Your task to perform on an android device: Clear the cart on newegg.com. Search for "bose soundsport free" on newegg.com, select the first entry, and add it to the cart. Image 0: 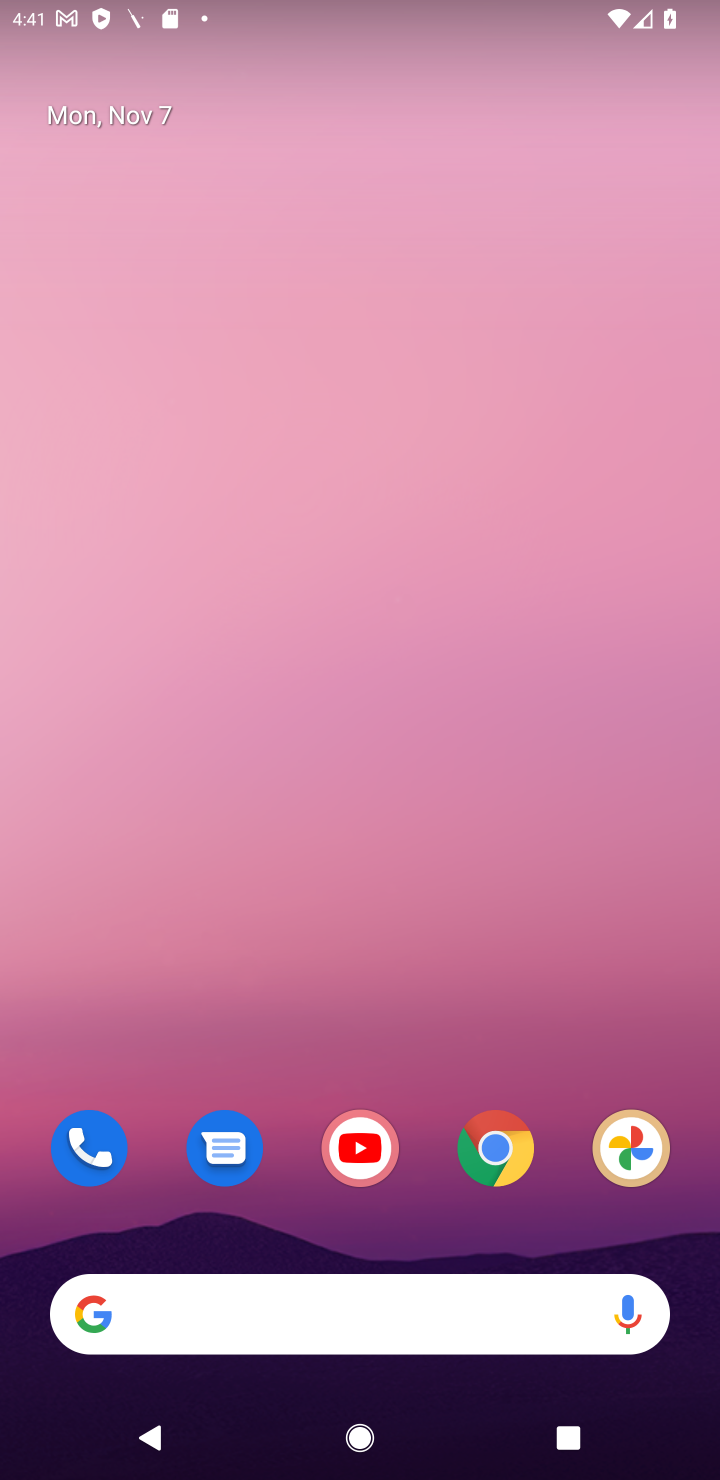
Step 0: click (492, 1147)
Your task to perform on an android device: Clear the cart on newegg.com. Search for "bose soundsport free" on newegg.com, select the first entry, and add it to the cart. Image 1: 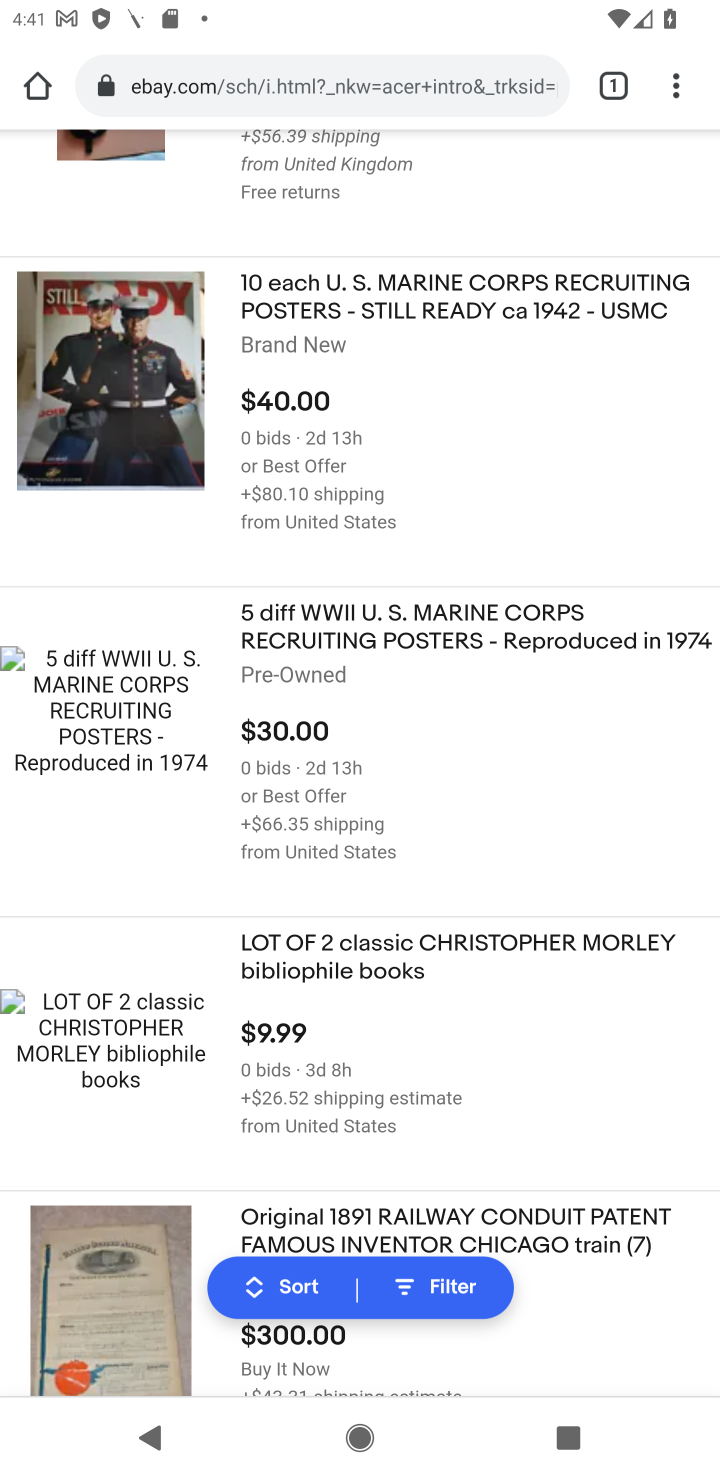
Step 1: click (405, 59)
Your task to perform on an android device: Clear the cart on newegg.com. Search for "bose soundsport free" on newegg.com, select the first entry, and add it to the cart. Image 2: 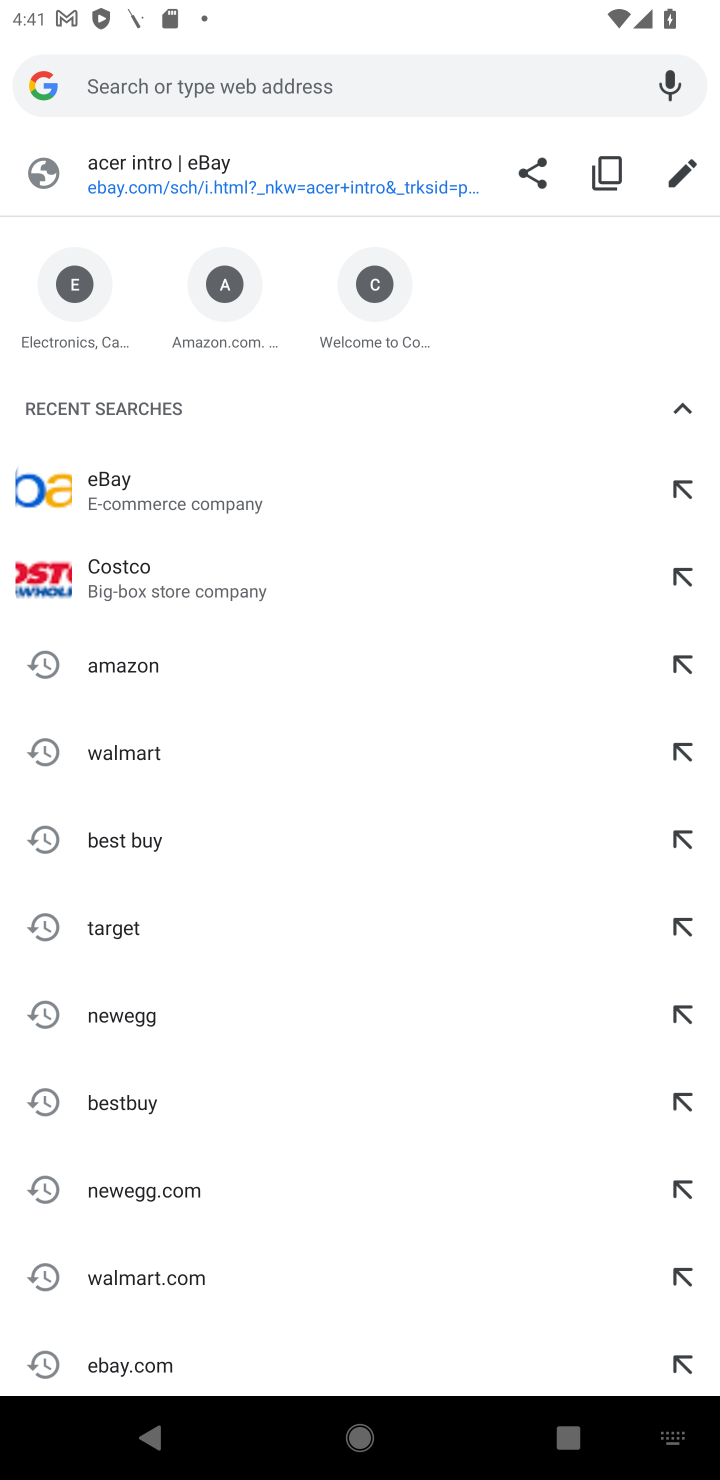
Step 2: type "newegg.com."
Your task to perform on an android device: Clear the cart on newegg.com. Search for "bose soundsport free" on newegg.com, select the first entry, and add it to the cart. Image 3: 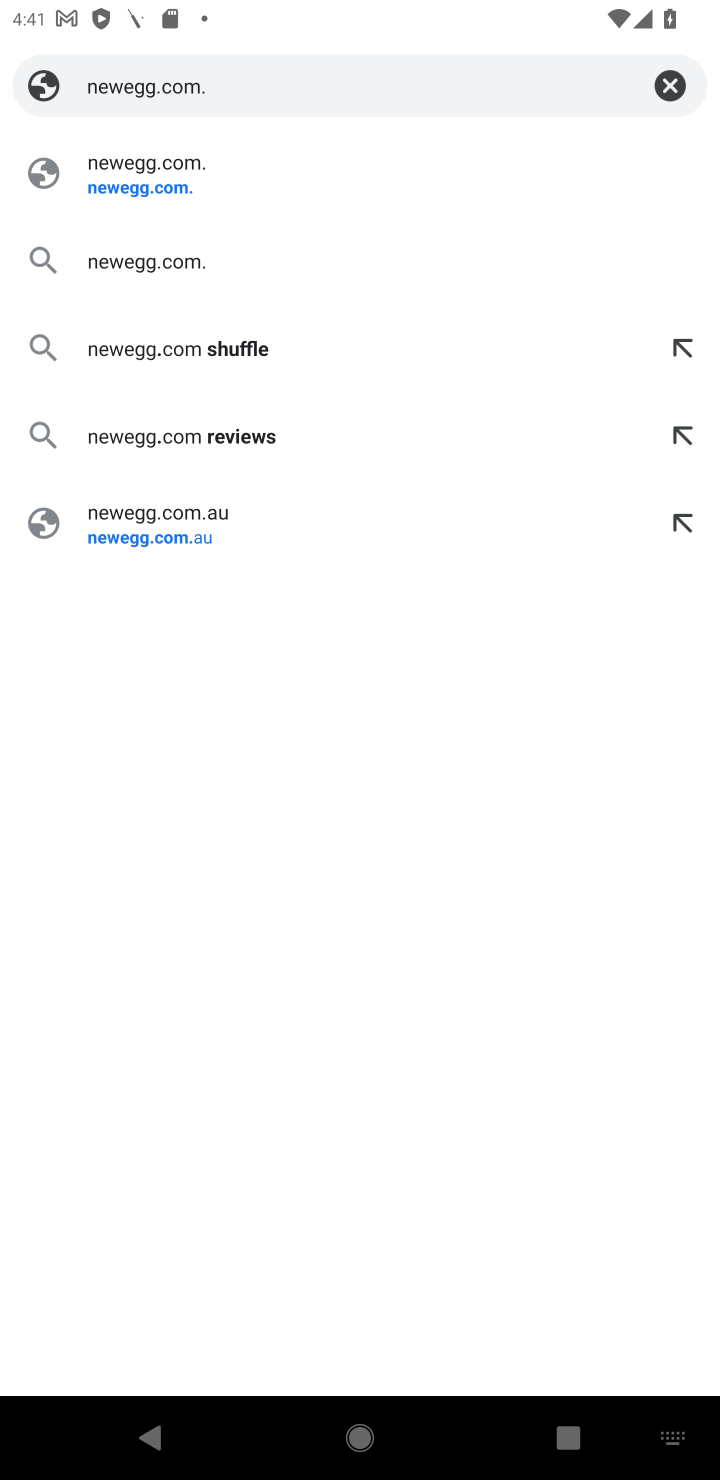
Step 3: click (113, 182)
Your task to perform on an android device: Clear the cart on newegg.com. Search for "bose soundsport free" on newegg.com, select the first entry, and add it to the cart. Image 4: 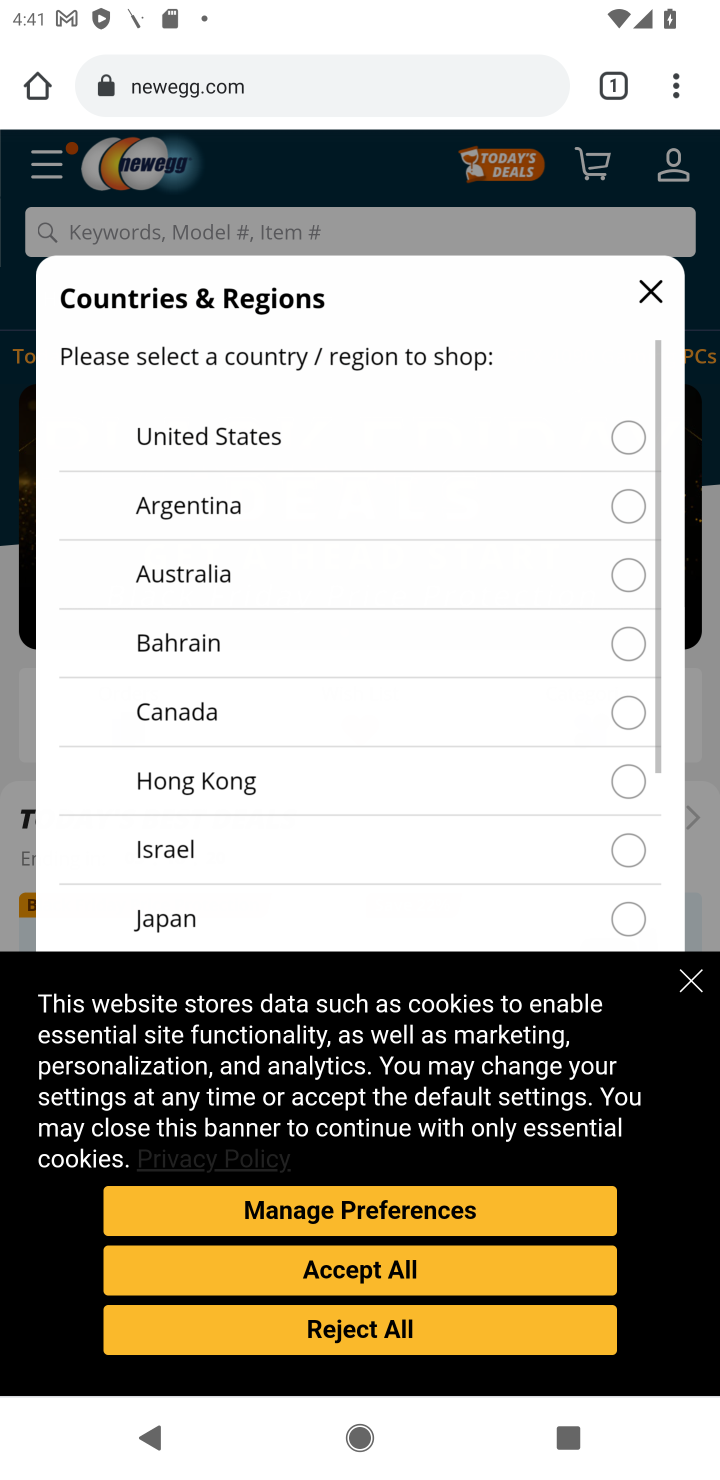
Step 4: click (110, 231)
Your task to perform on an android device: Clear the cart on newegg.com. Search for "bose soundsport free" on newegg.com, select the first entry, and add it to the cart. Image 5: 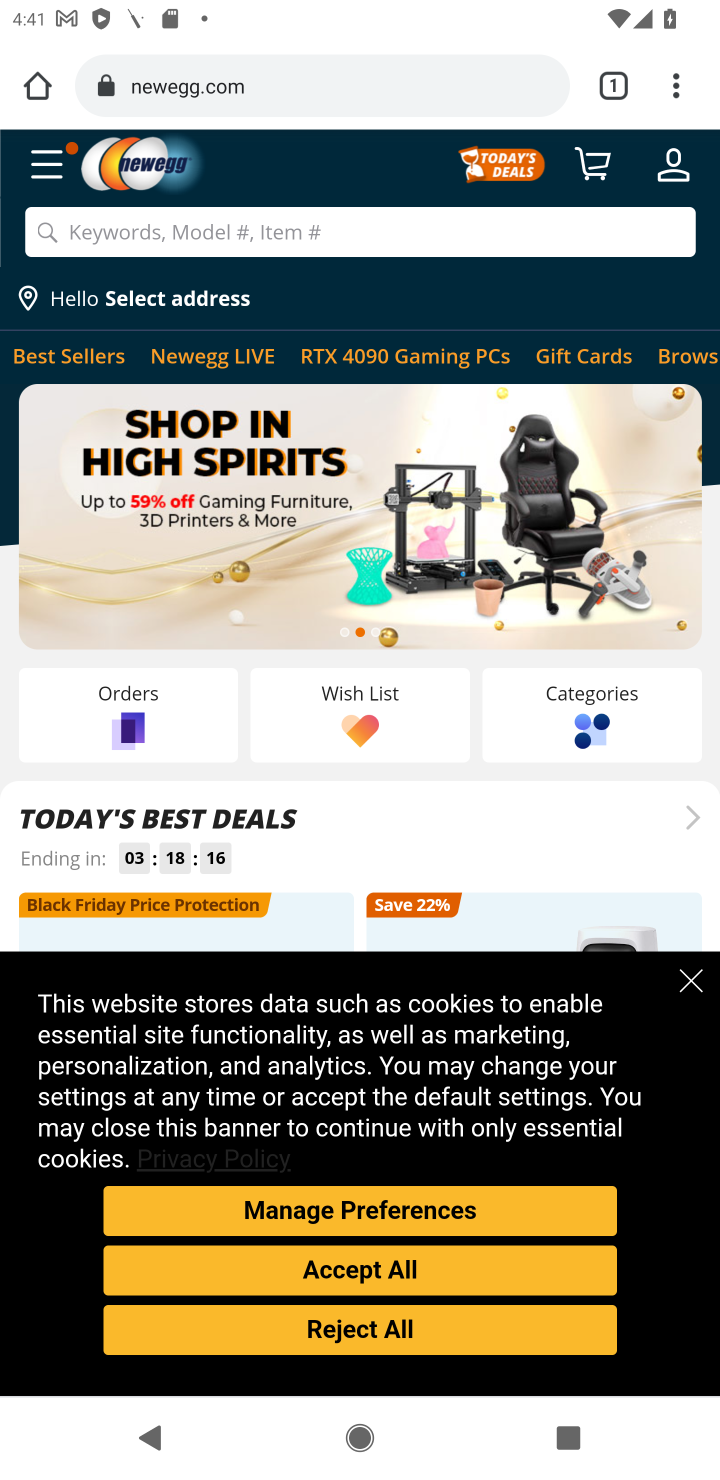
Step 5: click (630, 439)
Your task to perform on an android device: Clear the cart on newegg.com. Search for "bose soundsport free" on newegg.com, select the first entry, and add it to the cart. Image 6: 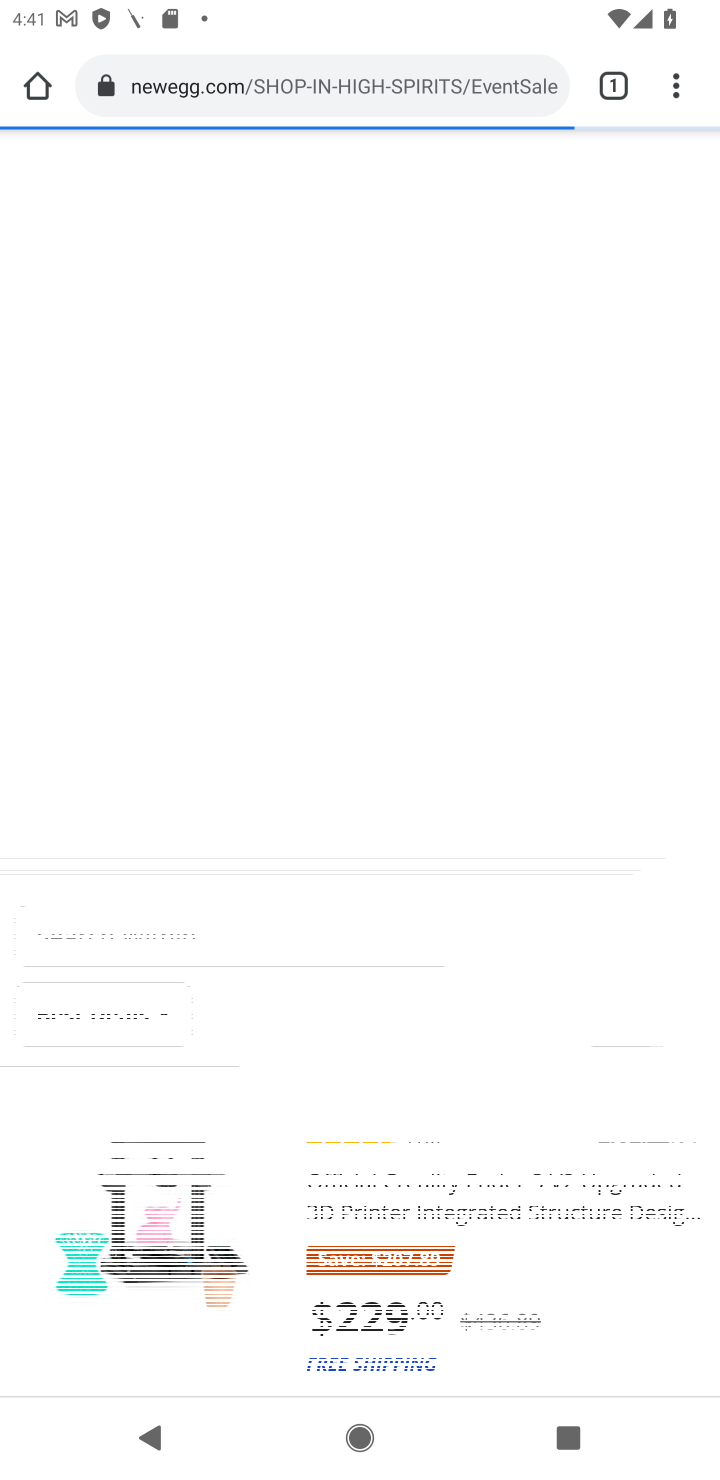
Step 6: click (340, 1272)
Your task to perform on an android device: Clear the cart on newegg.com. Search for "bose soundsport free" on newegg.com, select the first entry, and add it to the cart. Image 7: 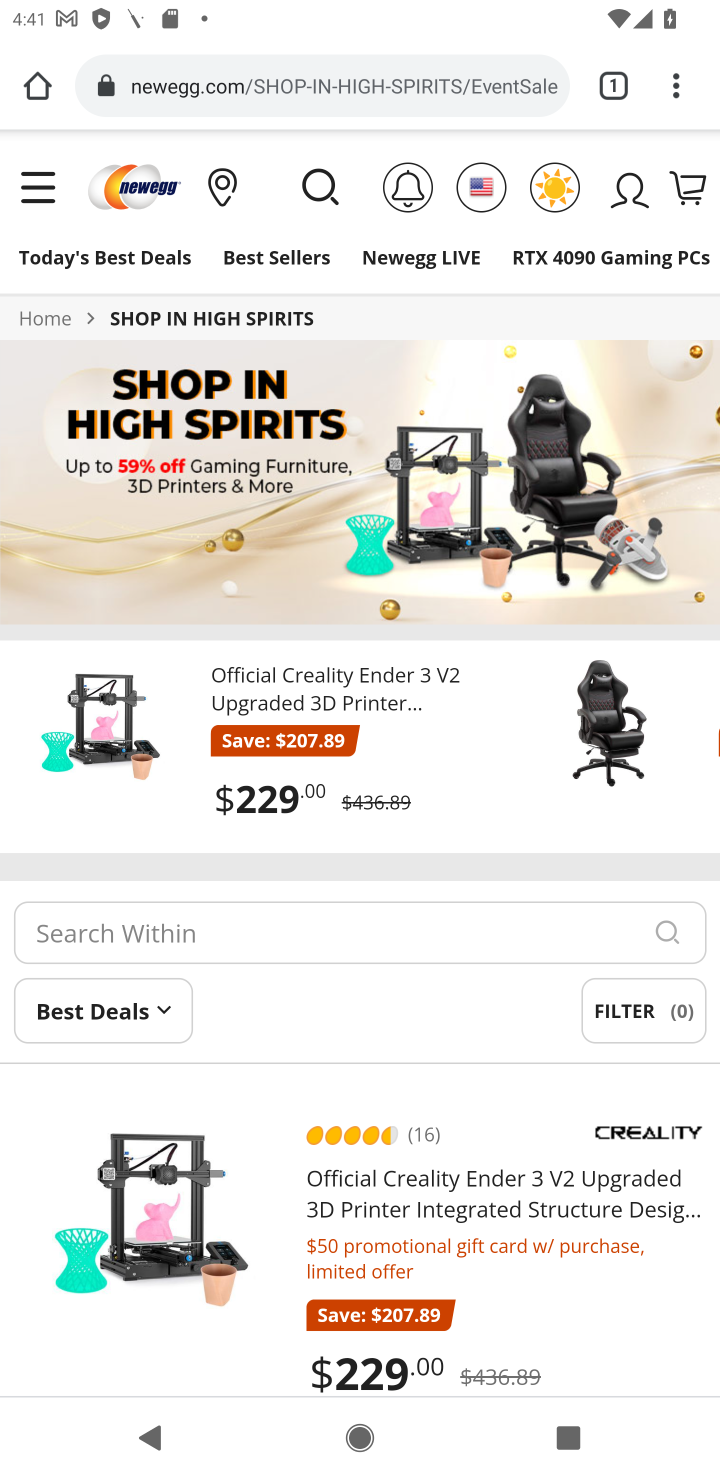
Step 7: click (309, 185)
Your task to perform on an android device: Clear the cart on newegg.com. Search for "bose soundsport free" on newegg.com, select the first entry, and add it to the cart. Image 8: 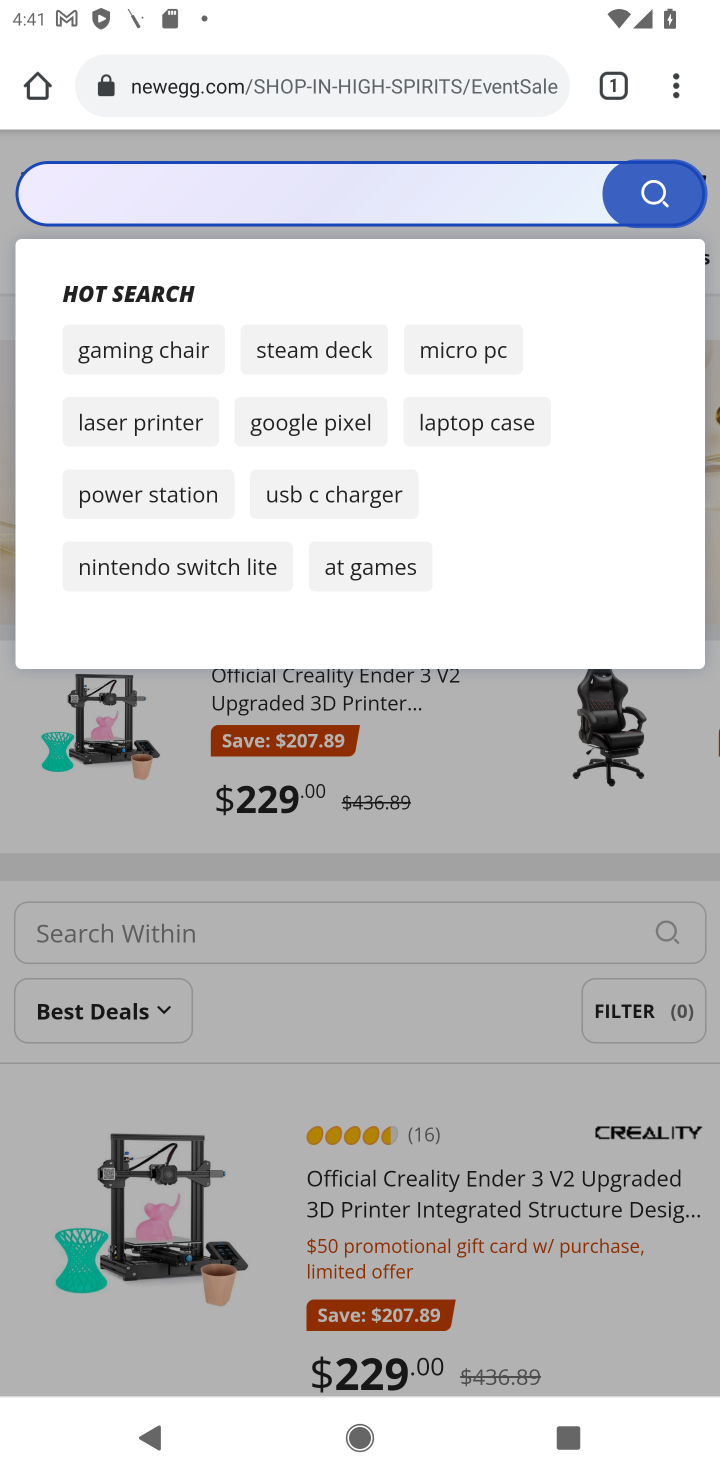
Step 8: click (136, 200)
Your task to perform on an android device: Clear the cart on newegg.com. Search for "bose soundsport free" on newegg.com, select the first entry, and add it to the cart. Image 9: 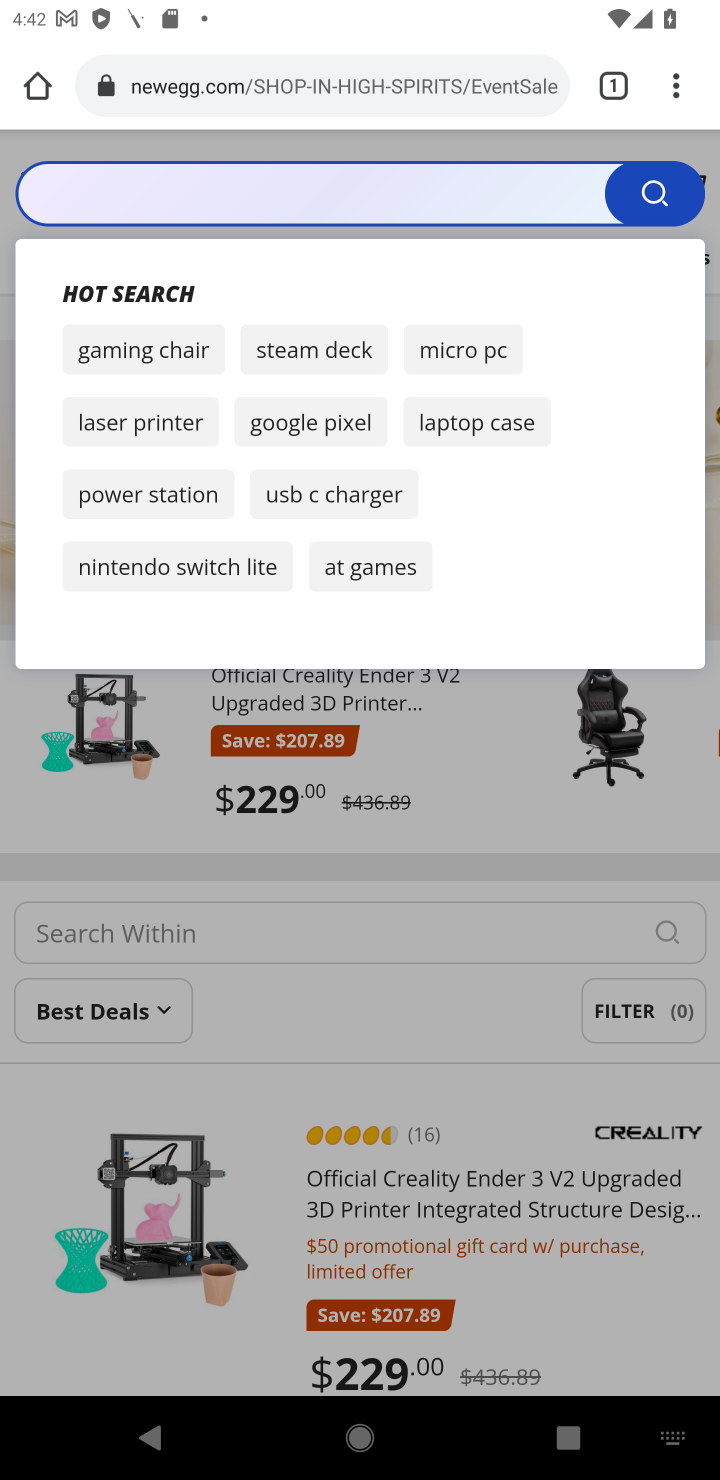
Step 9: type "bose soundlink free"
Your task to perform on an android device: Clear the cart on newegg.com. Search for "bose soundsport free" on newegg.com, select the first entry, and add it to the cart. Image 10: 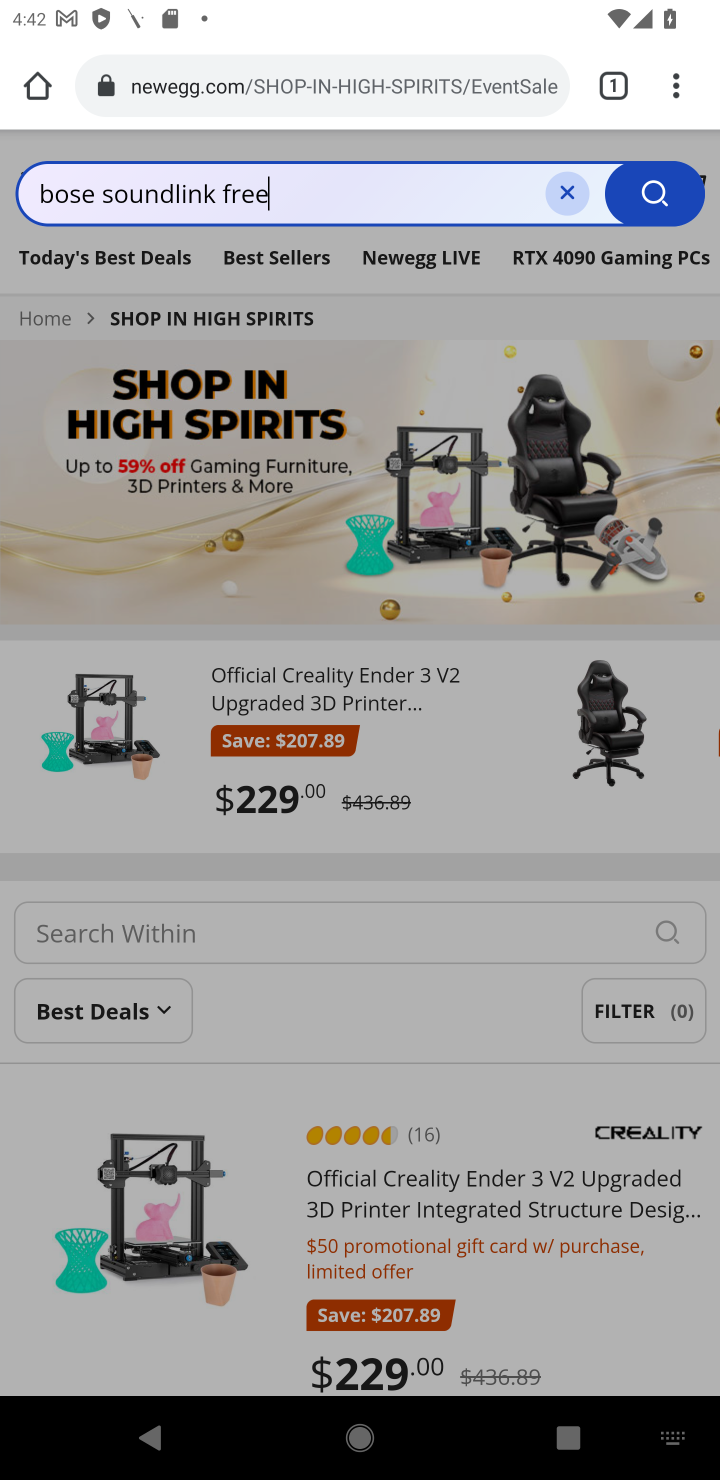
Step 10: click (650, 197)
Your task to perform on an android device: Clear the cart on newegg.com. Search for "bose soundsport free" on newegg.com, select the first entry, and add it to the cart. Image 11: 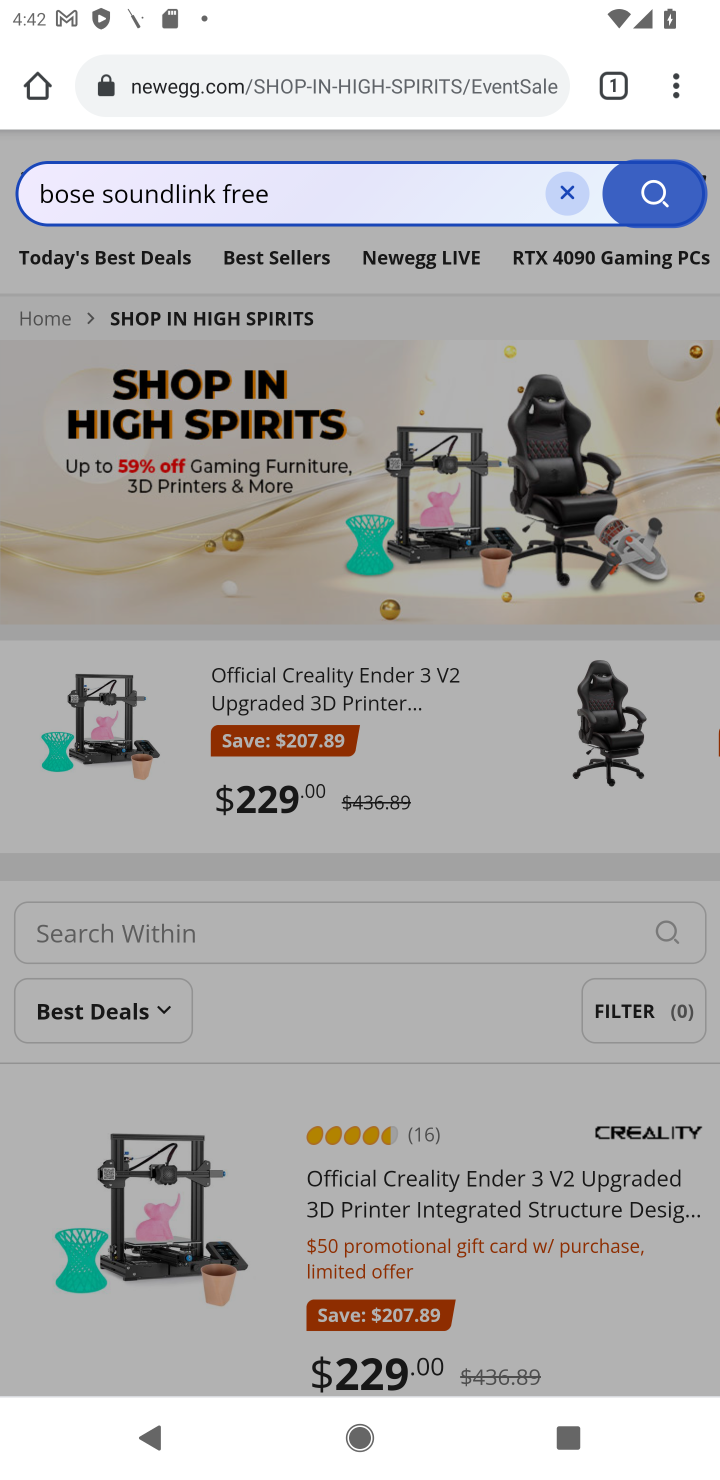
Step 11: click (655, 188)
Your task to perform on an android device: Clear the cart on newegg.com. Search for "bose soundsport free" on newegg.com, select the first entry, and add it to the cart. Image 12: 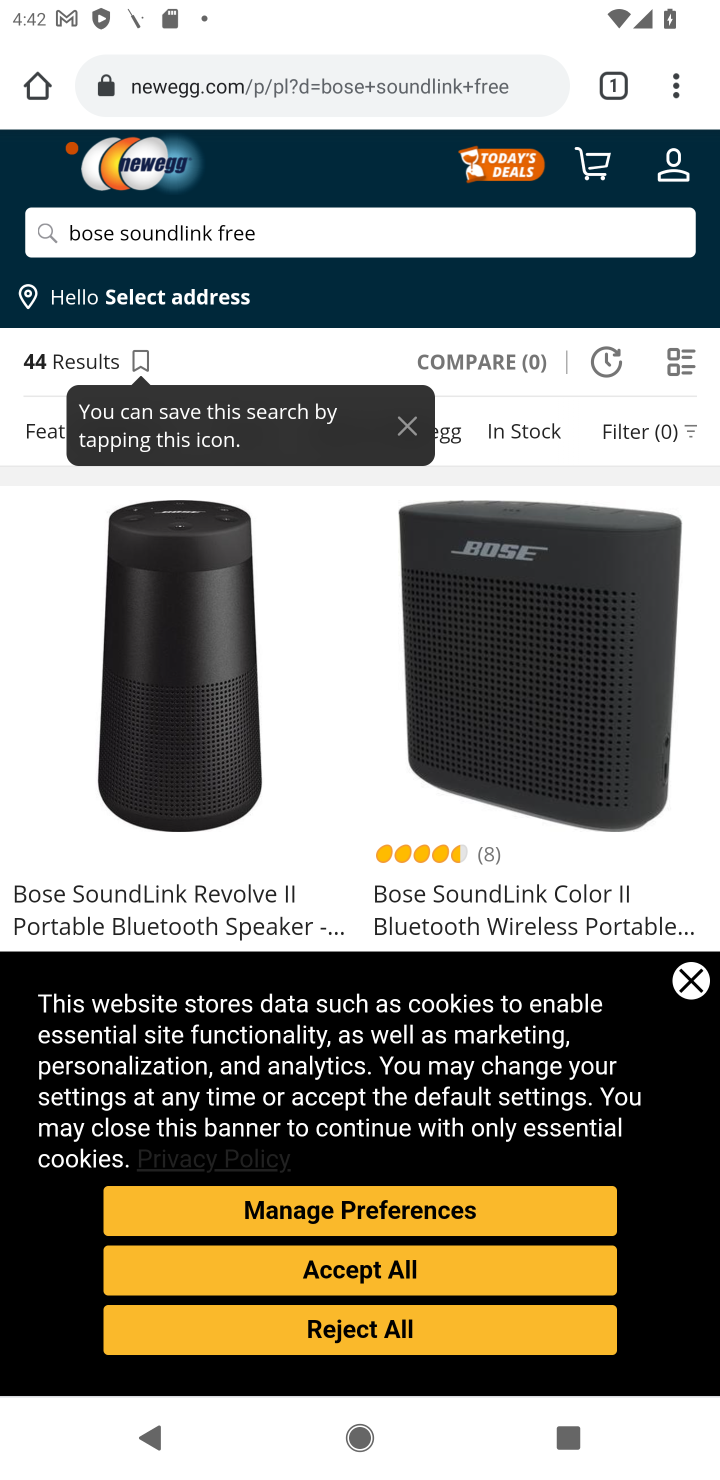
Step 12: click (350, 1270)
Your task to perform on an android device: Clear the cart on newegg.com. Search for "bose soundsport free" on newegg.com, select the first entry, and add it to the cart. Image 13: 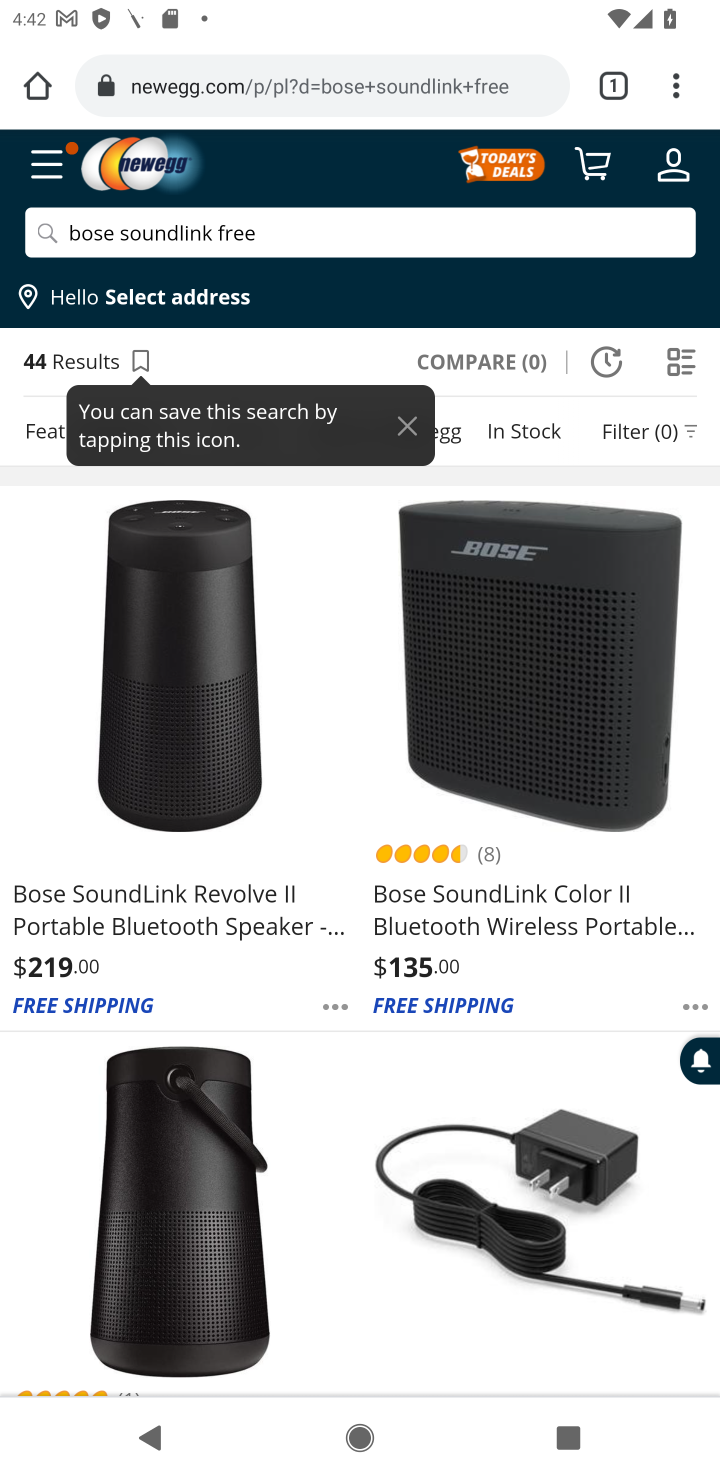
Step 13: click (125, 914)
Your task to perform on an android device: Clear the cart on newegg.com. Search for "bose soundsport free" on newegg.com, select the first entry, and add it to the cart. Image 14: 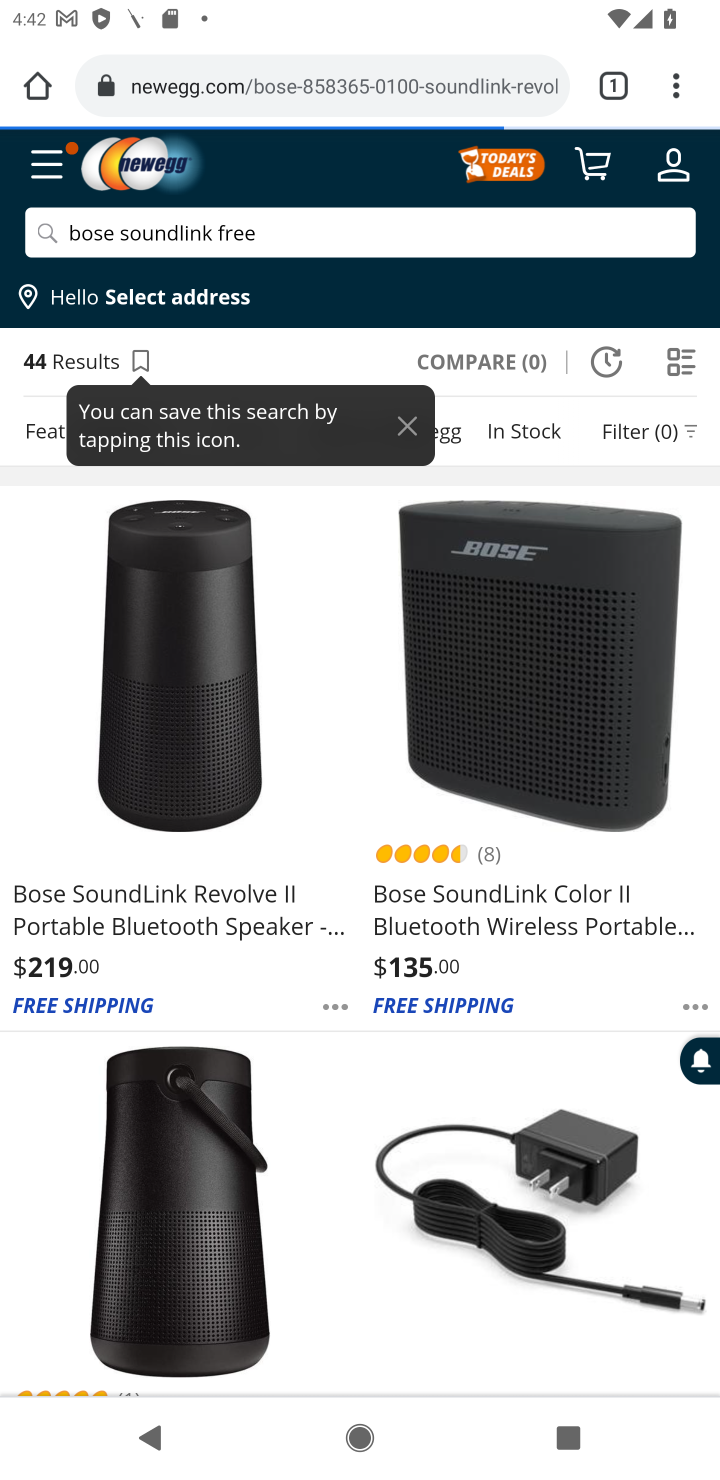
Step 14: drag from (402, 1336) to (397, 392)
Your task to perform on an android device: Clear the cart on newegg.com. Search for "bose soundsport free" on newegg.com, select the first entry, and add it to the cart. Image 15: 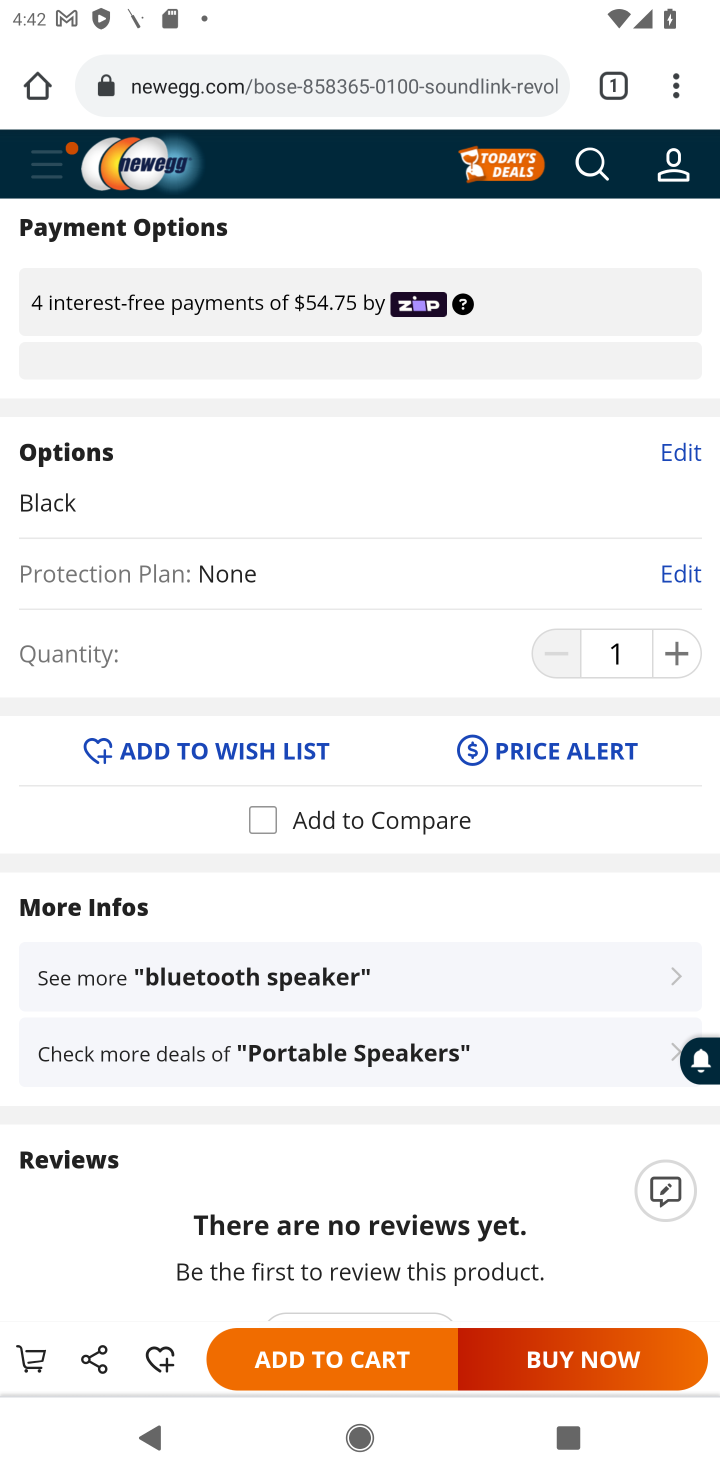
Step 15: click (343, 1361)
Your task to perform on an android device: Clear the cart on newegg.com. Search for "bose soundsport free" on newegg.com, select the first entry, and add it to the cart. Image 16: 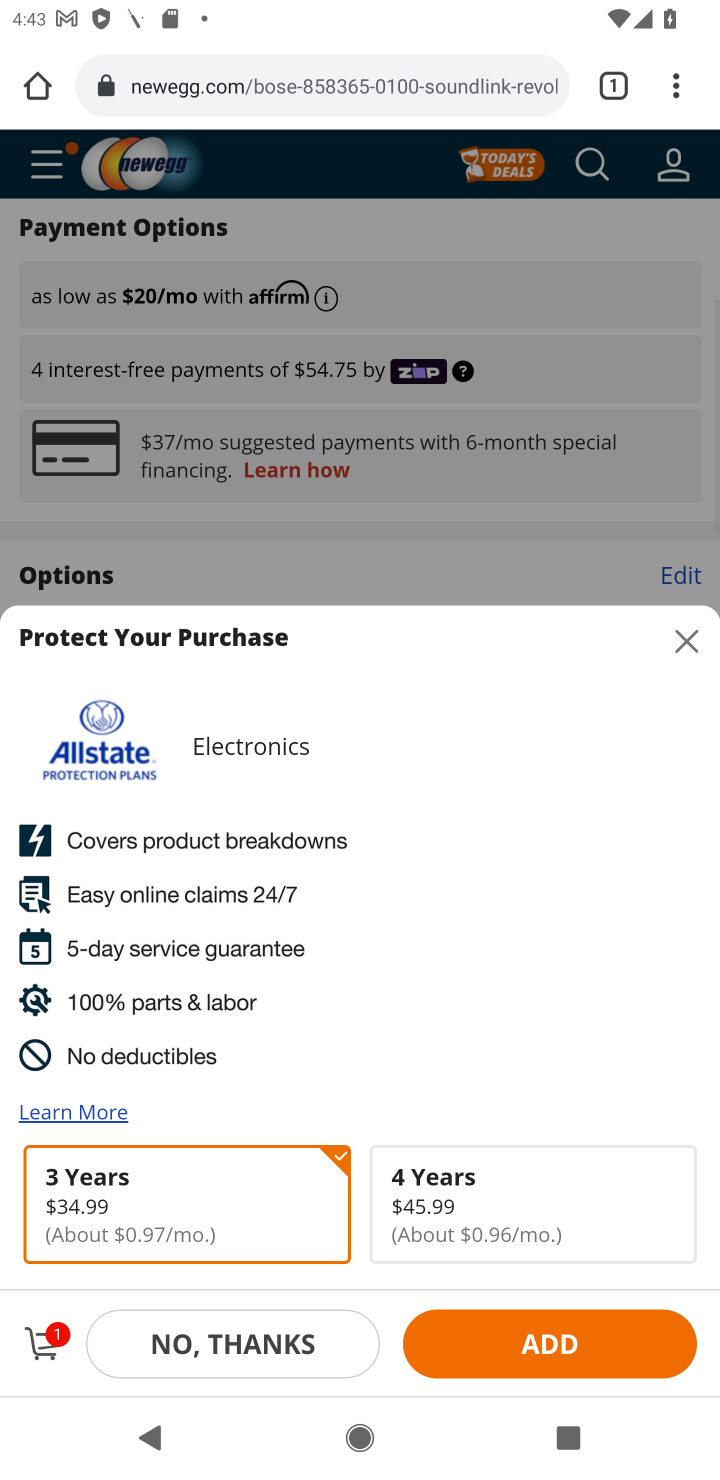
Step 16: click (244, 1344)
Your task to perform on an android device: Clear the cart on newegg.com. Search for "bose soundsport free" on newegg.com, select the first entry, and add it to the cart. Image 17: 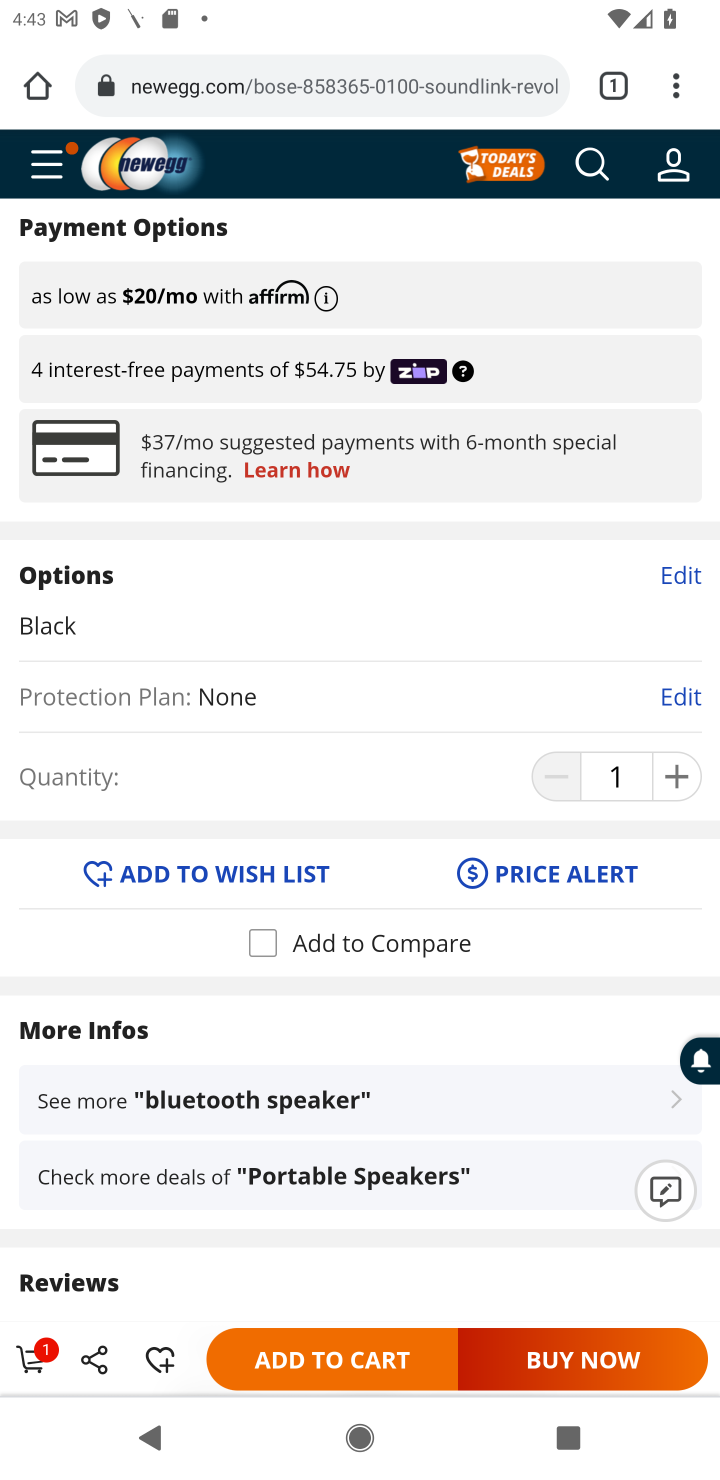
Step 17: task complete